Your task to perform on an android device: check battery use Image 0: 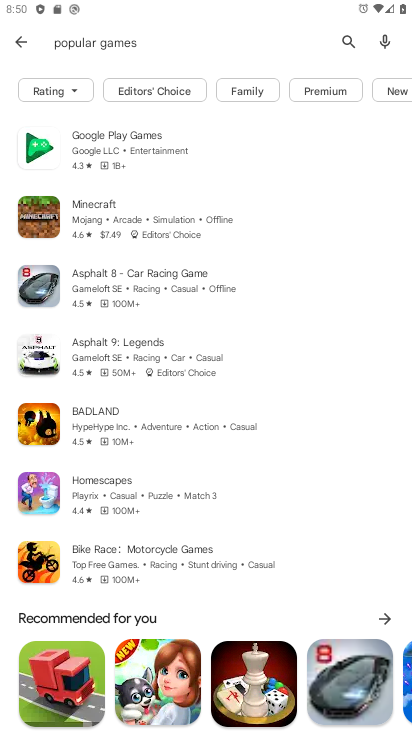
Step 0: press home button
Your task to perform on an android device: check battery use Image 1: 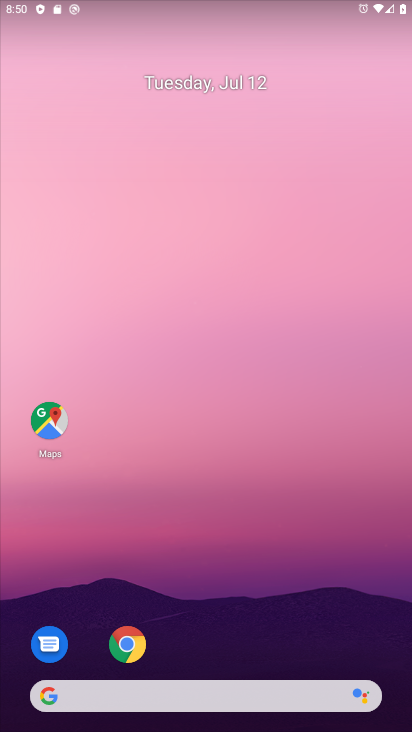
Step 1: drag from (19, 699) to (402, 2)
Your task to perform on an android device: check battery use Image 2: 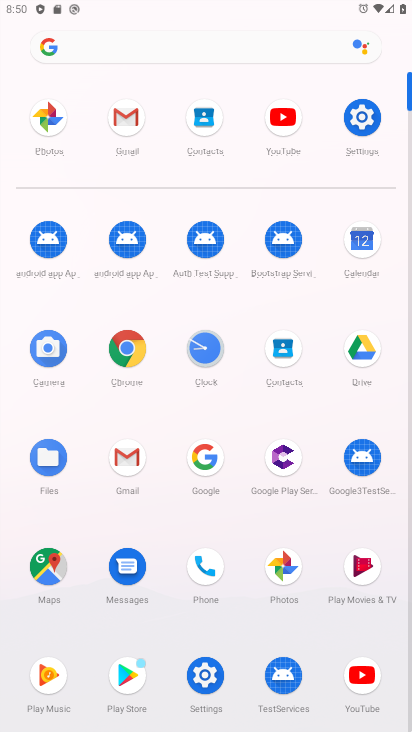
Step 2: click (197, 669)
Your task to perform on an android device: check battery use Image 3: 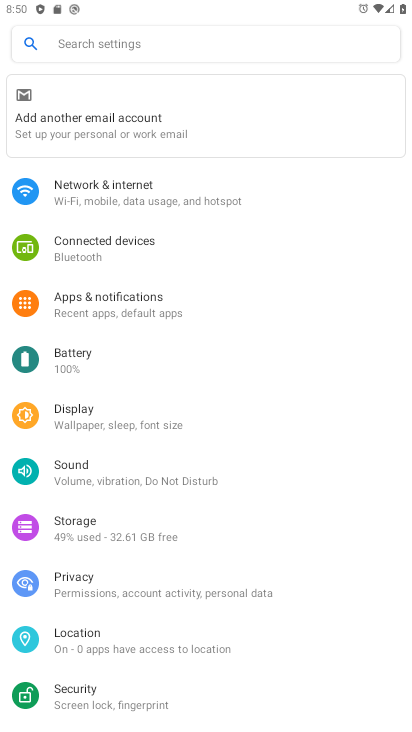
Step 3: click (85, 352)
Your task to perform on an android device: check battery use Image 4: 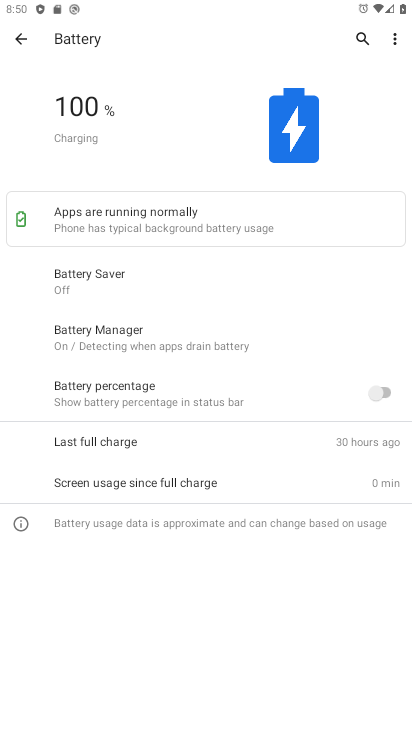
Step 4: task complete